Your task to perform on an android device: find photos in the google photos app Image 0: 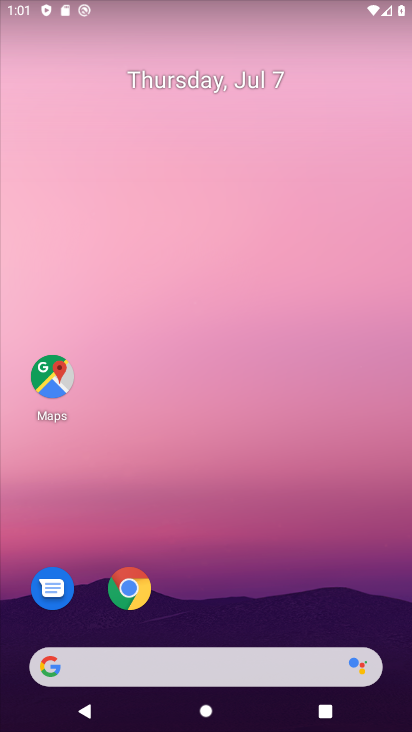
Step 0: drag from (290, 619) to (252, 235)
Your task to perform on an android device: find photos in the google photos app Image 1: 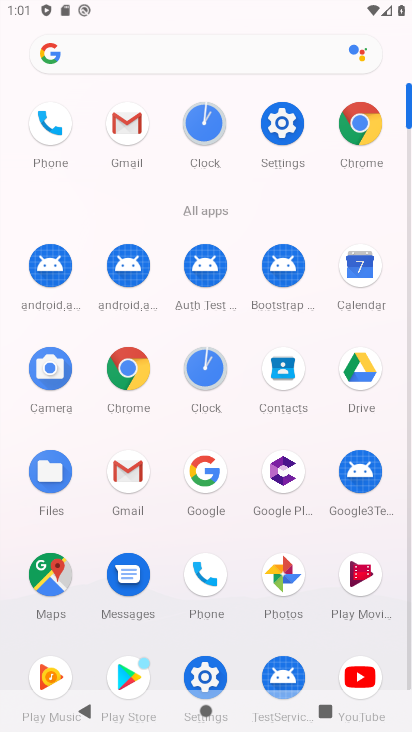
Step 1: click (281, 566)
Your task to perform on an android device: find photos in the google photos app Image 2: 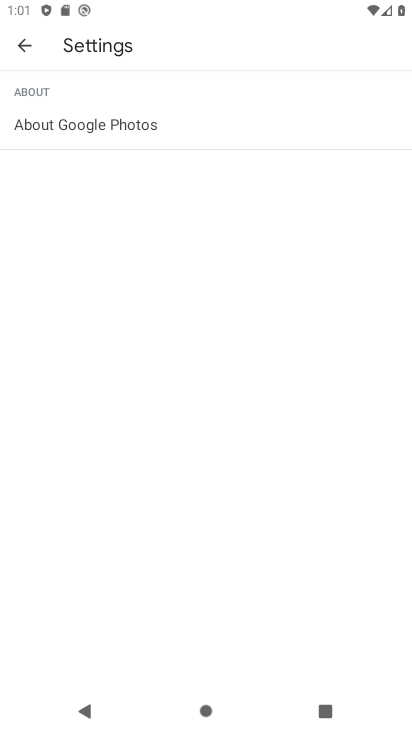
Step 2: click (48, 42)
Your task to perform on an android device: find photos in the google photos app Image 3: 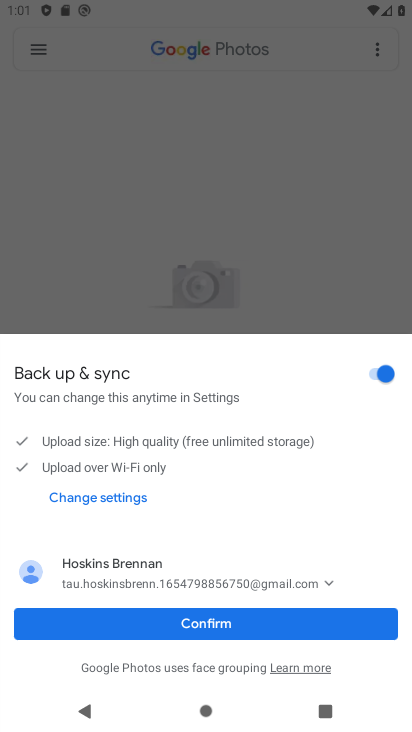
Step 3: click (67, 69)
Your task to perform on an android device: find photos in the google photos app Image 4: 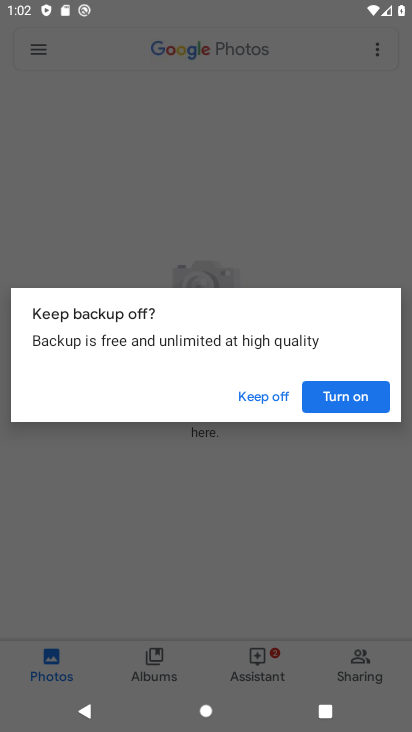
Step 4: press home button
Your task to perform on an android device: find photos in the google photos app Image 5: 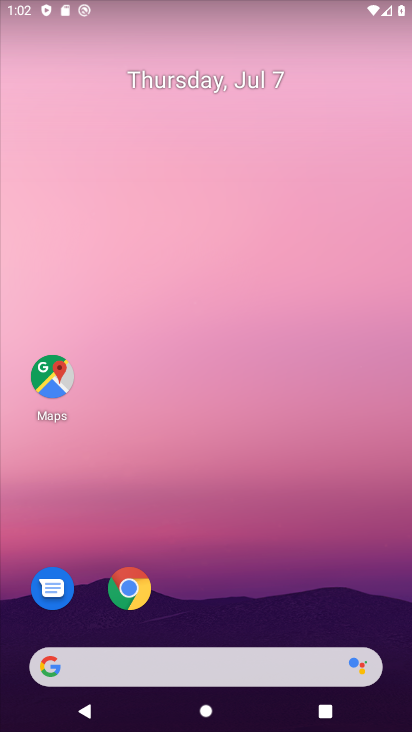
Step 5: drag from (337, 613) to (291, 394)
Your task to perform on an android device: find photos in the google photos app Image 6: 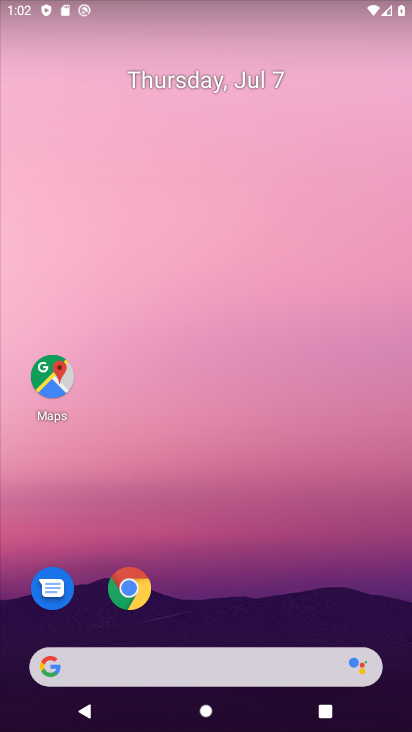
Step 6: drag from (261, 624) to (233, 251)
Your task to perform on an android device: find photos in the google photos app Image 7: 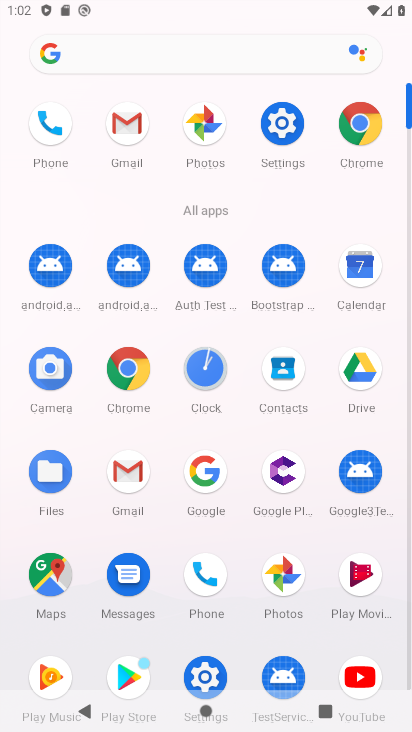
Step 7: click (277, 571)
Your task to perform on an android device: find photos in the google photos app Image 8: 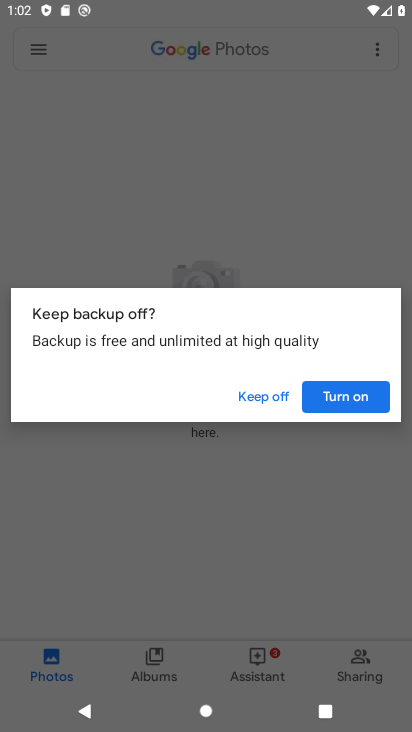
Step 8: click (258, 401)
Your task to perform on an android device: find photos in the google photos app Image 9: 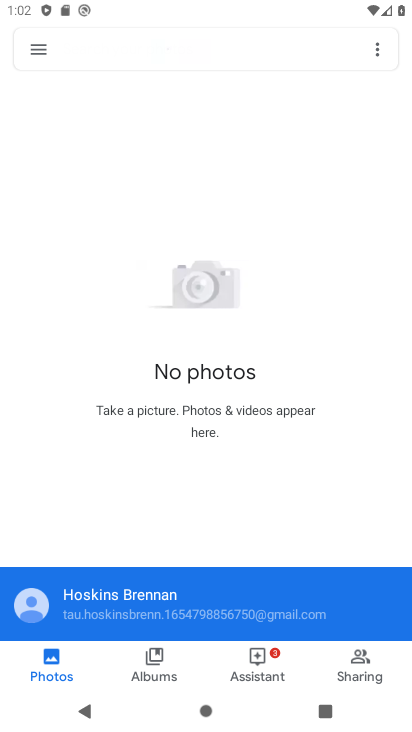
Step 9: click (154, 653)
Your task to perform on an android device: find photos in the google photos app Image 10: 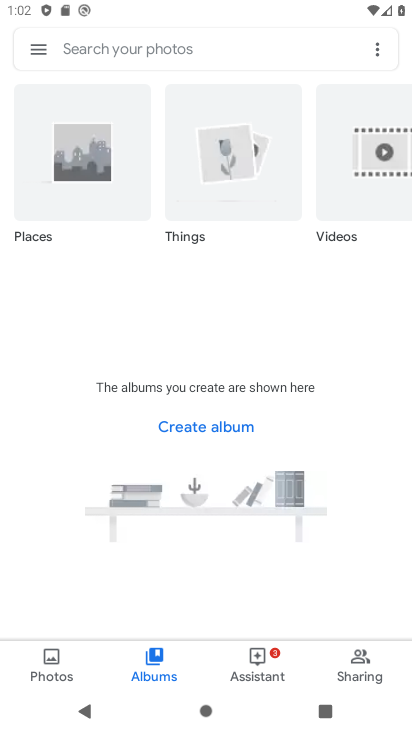
Step 10: task complete